Your task to perform on an android device: toggle data saver in the chrome app Image 0: 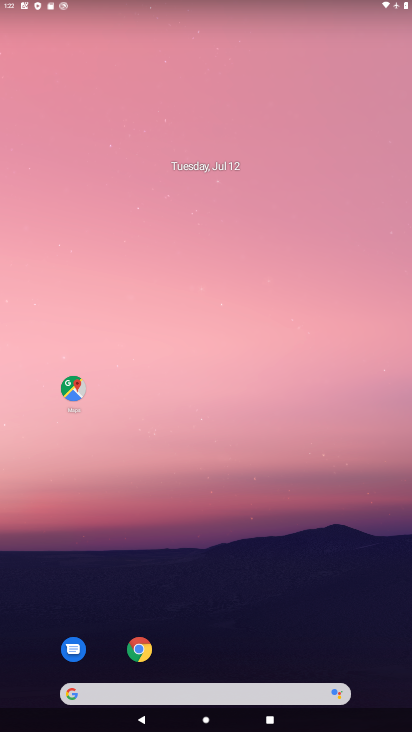
Step 0: drag from (267, 643) to (220, 86)
Your task to perform on an android device: toggle data saver in the chrome app Image 1: 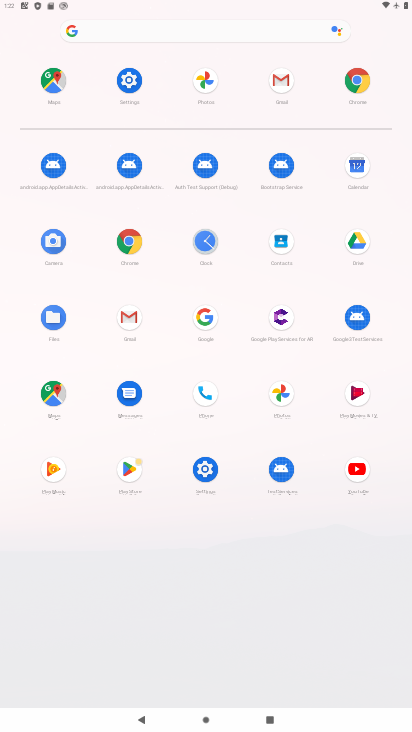
Step 1: click (346, 83)
Your task to perform on an android device: toggle data saver in the chrome app Image 2: 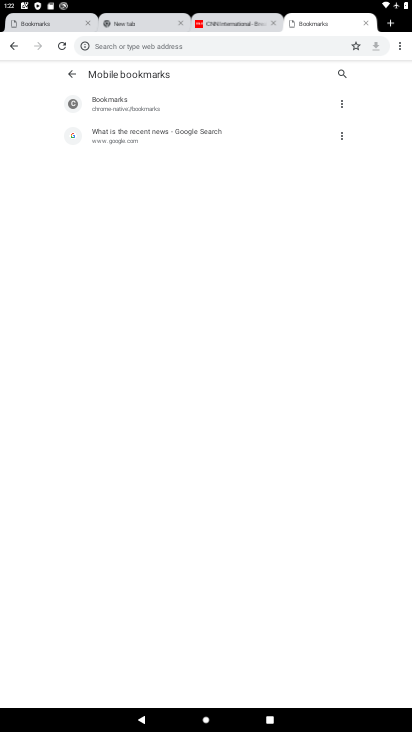
Step 2: click (397, 52)
Your task to perform on an android device: toggle data saver in the chrome app Image 3: 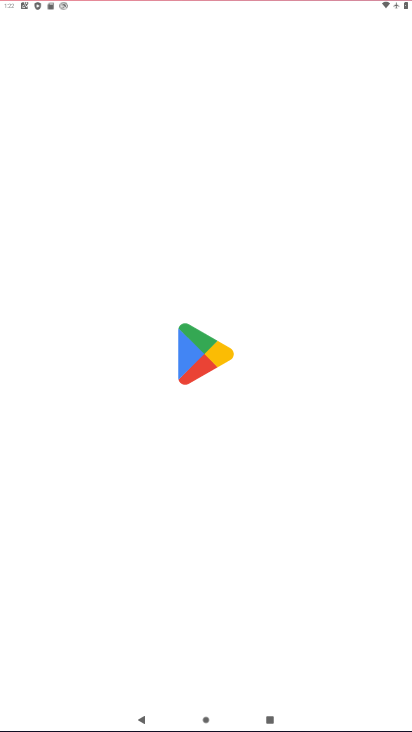
Step 3: click (395, 54)
Your task to perform on an android device: toggle data saver in the chrome app Image 4: 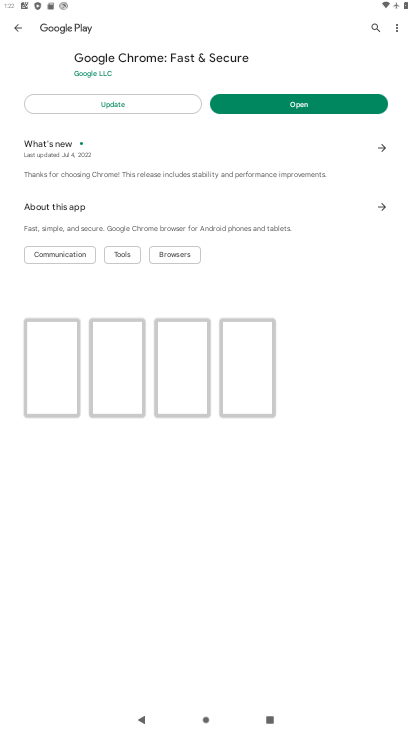
Step 4: press back button
Your task to perform on an android device: toggle data saver in the chrome app Image 5: 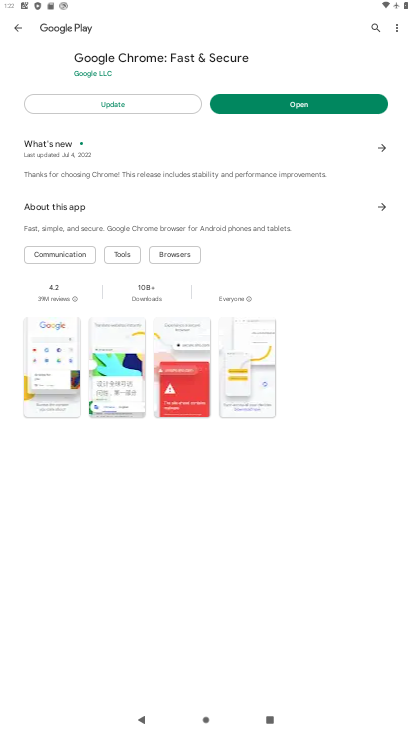
Step 5: press back button
Your task to perform on an android device: toggle data saver in the chrome app Image 6: 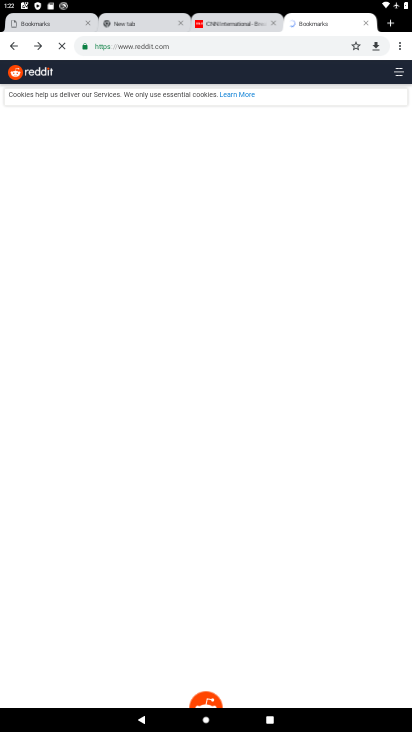
Step 6: click (396, 48)
Your task to perform on an android device: toggle data saver in the chrome app Image 7: 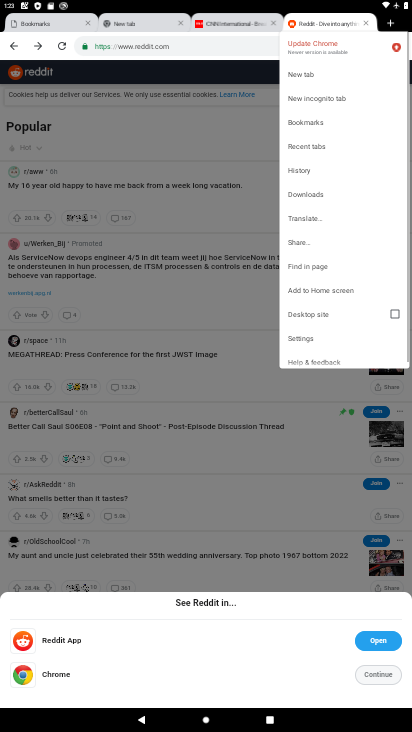
Step 7: click (321, 333)
Your task to perform on an android device: toggle data saver in the chrome app Image 8: 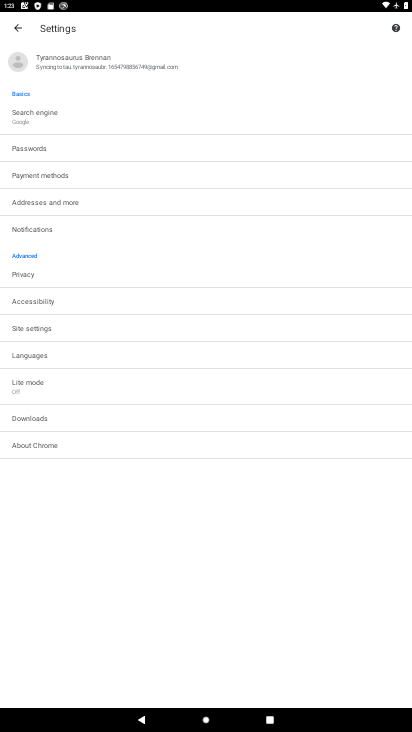
Step 8: click (109, 393)
Your task to perform on an android device: toggle data saver in the chrome app Image 9: 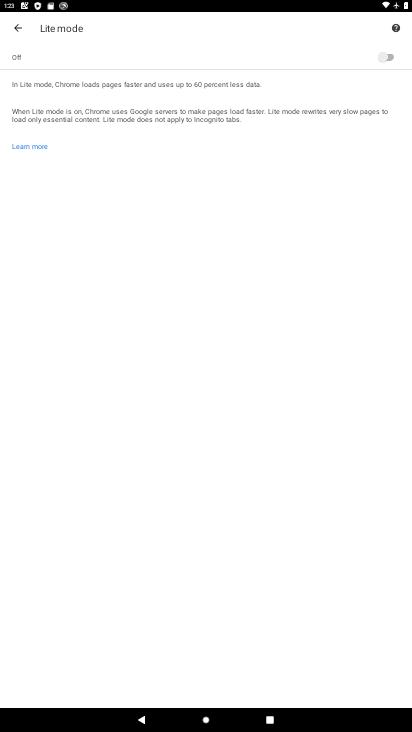
Step 9: click (384, 62)
Your task to perform on an android device: toggle data saver in the chrome app Image 10: 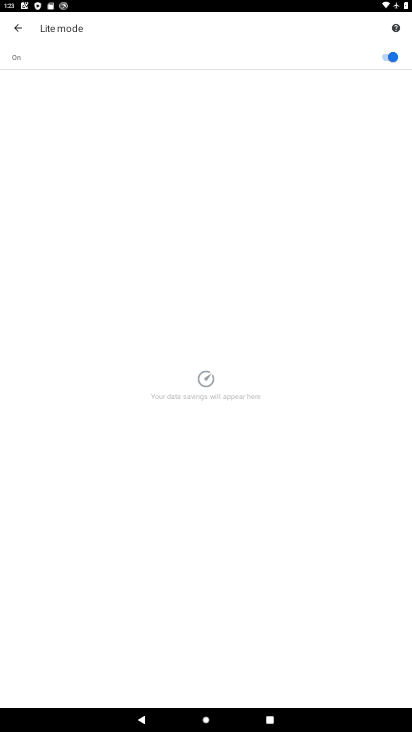
Step 10: task complete